Your task to perform on an android device: set the timer Image 0: 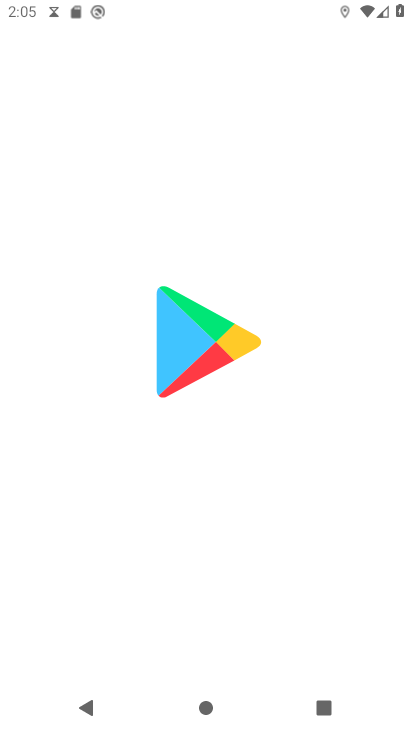
Step 0: drag from (205, 647) to (333, 84)
Your task to perform on an android device: set the timer Image 1: 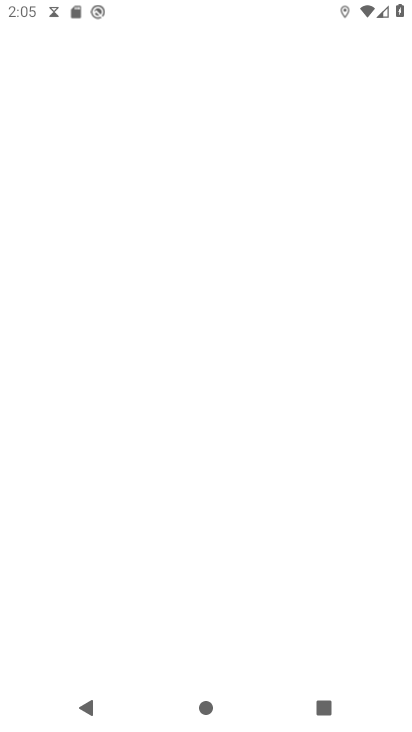
Step 1: press home button
Your task to perform on an android device: set the timer Image 2: 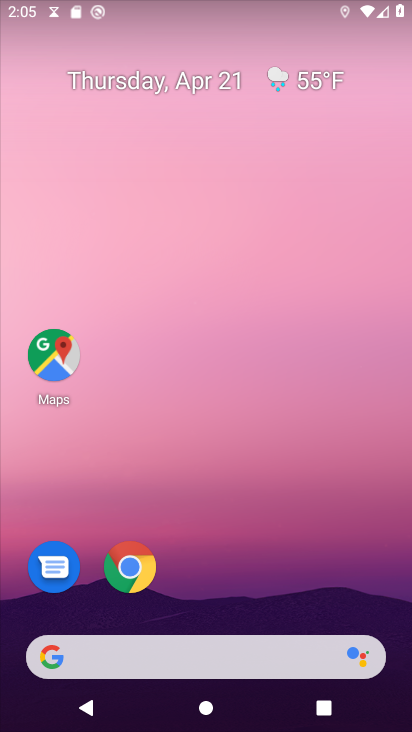
Step 2: drag from (167, 654) to (304, 87)
Your task to perform on an android device: set the timer Image 3: 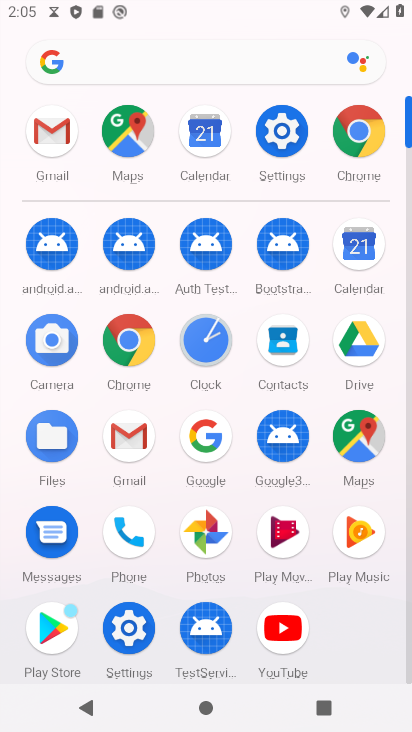
Step 3: click (203, 342)
Your task to perform on an android device: set the timer Image 4: 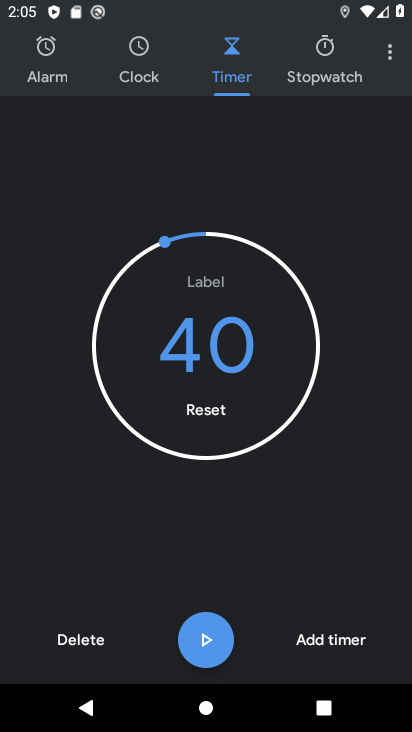
Step 4: click (75, 644)
Your task to perform on an android device: set the timer Image 5: 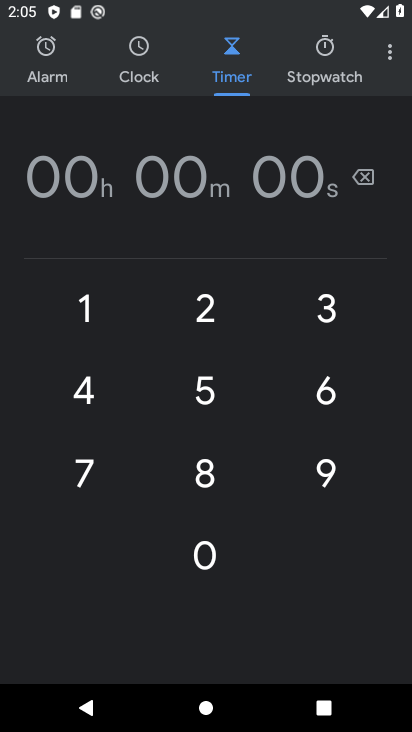
Step 5: click (86, 310)
Your task to perform on an android device: set the timer Image 6: 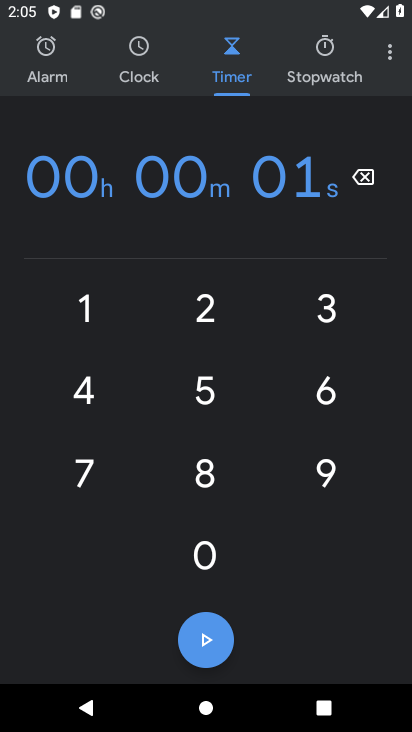
Step 6: click (86, 310)
Your task to perform on an android device: set the timer Image 7: 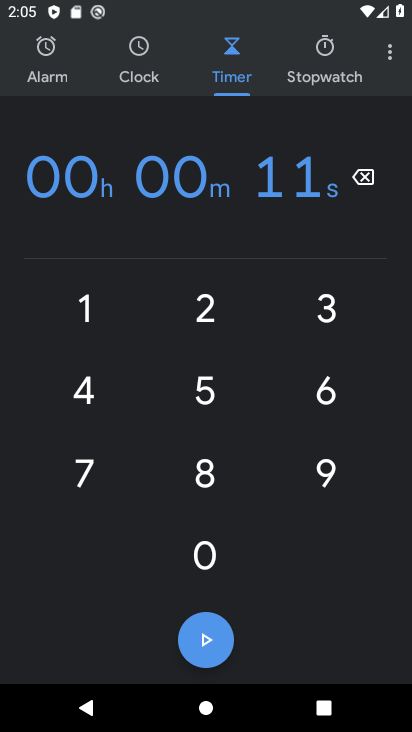
Step 7: click (197, 641)
Your task to perform on an android device: set the timer Image 8: 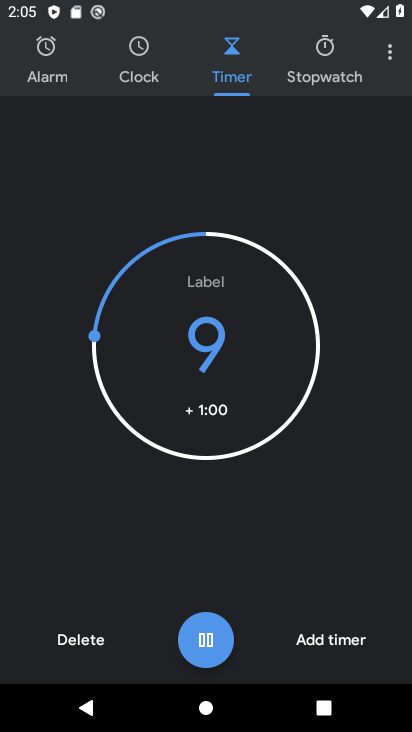
Step 8: click (204, 647)
Your task to perform on an android device: set the timer Image 9: 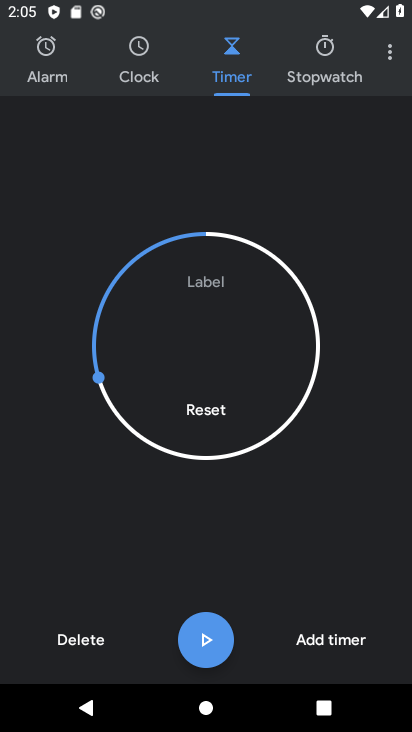
Step 9: task complete